Your task to perform on an android device: change text size in settings app Image 0: 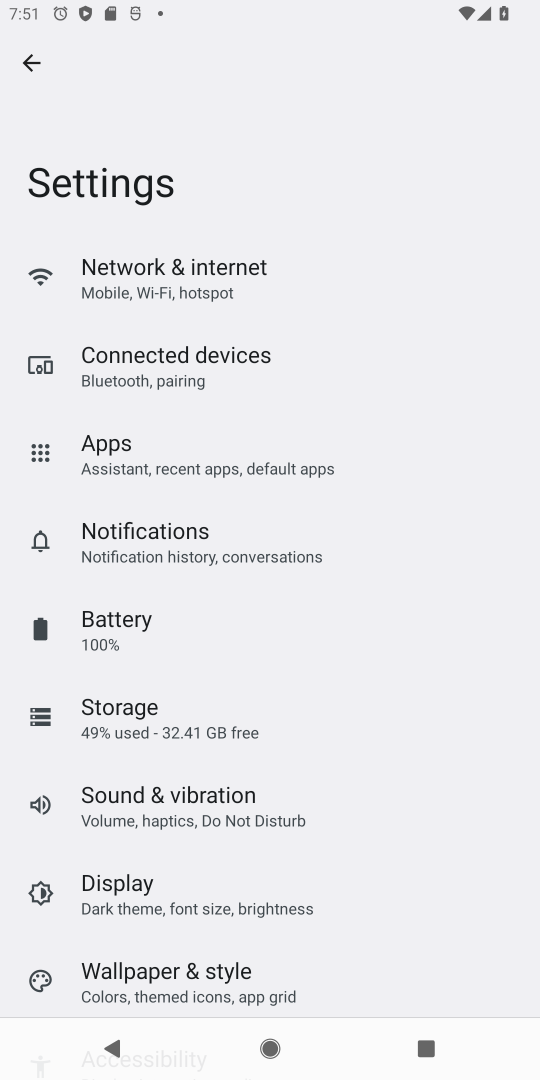
Step 0: drag from (319, 446) to (318, 574)
Your task to perform on an android device: change text size in settings app Image 1: 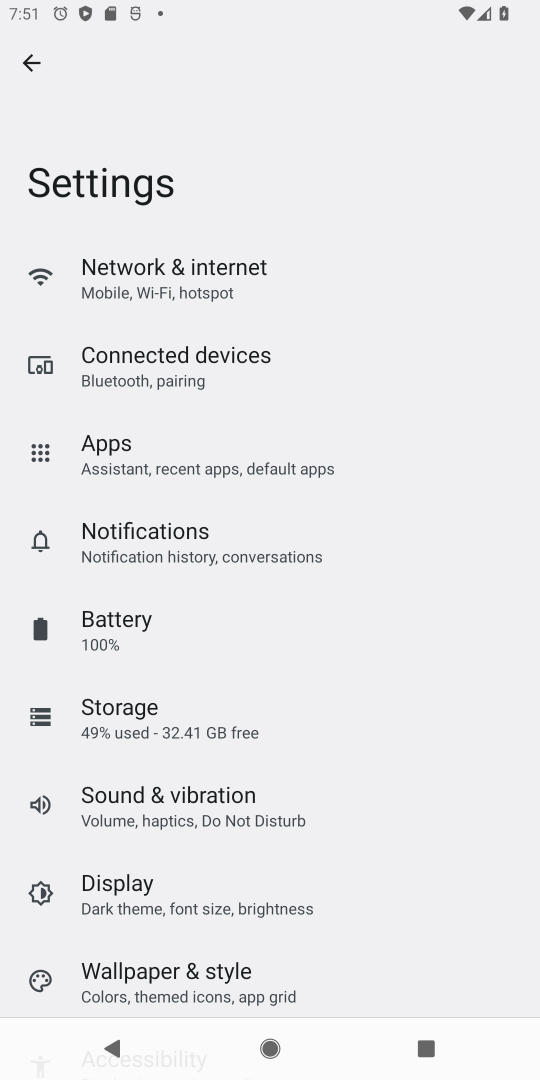
Step 1: click (19, 40)
Your task to perform on an android device: change text size in settings app Image 2: 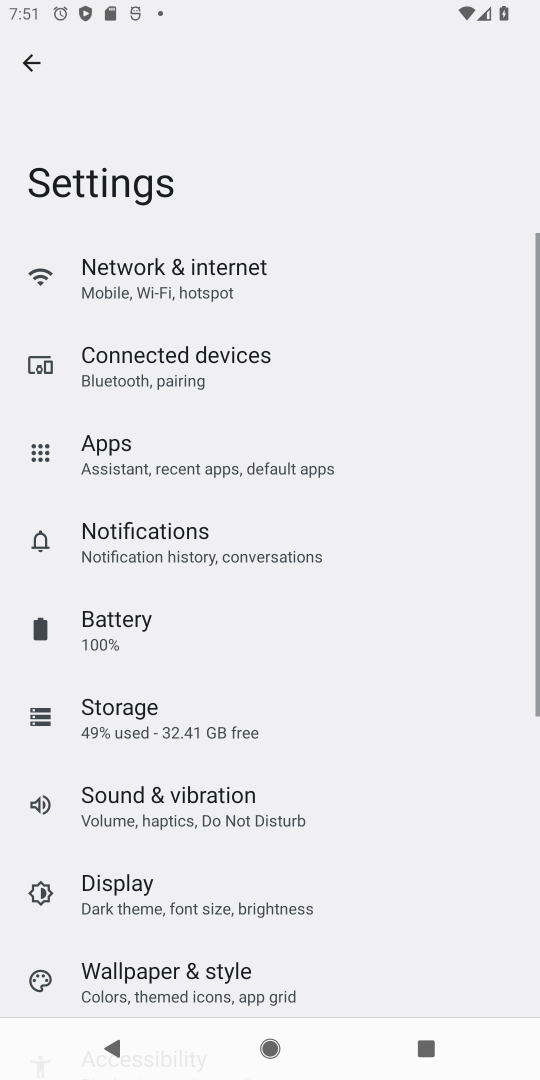
Step 2: click (36, 55)
Your task to perform on an android device: change text size in settings app Image 3: 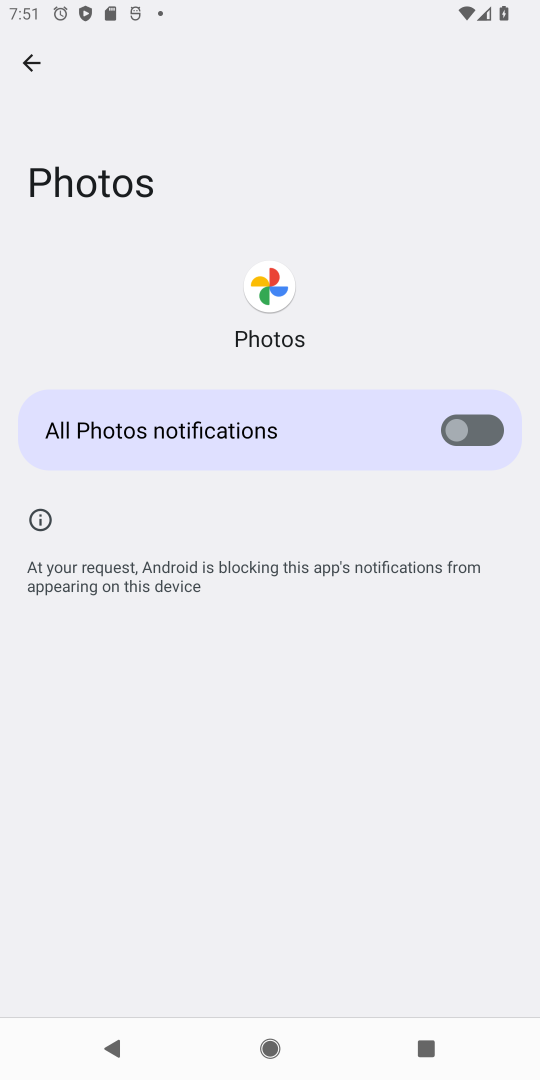
Step 3: click (37, 63)
Your task to perform on an android device: change text size in settings app Image 4: 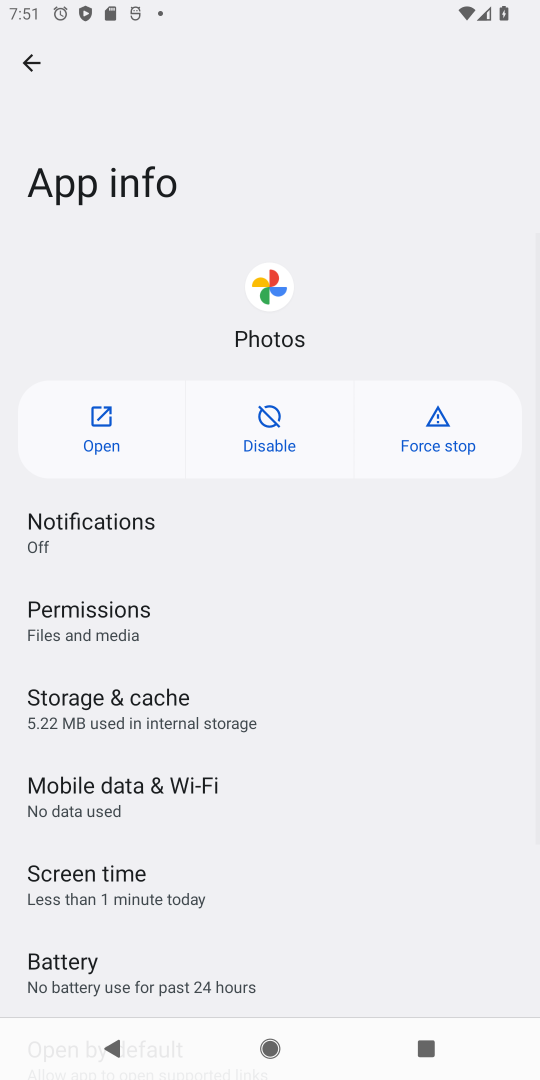
Step 4: click (38, 50)
Your task to perform on an android device: change text size in settings app Image 5: 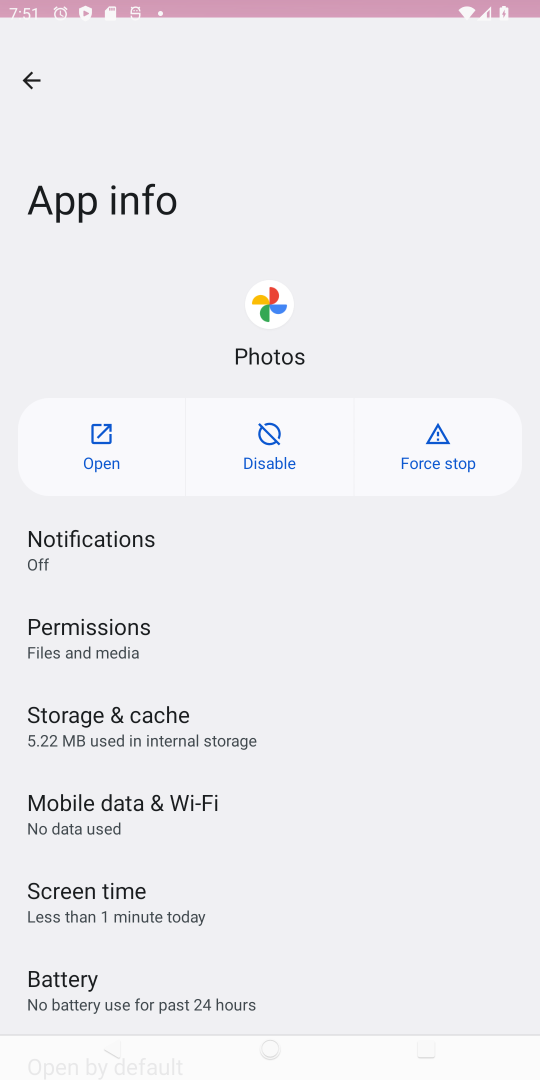
Step 5: press back button
Your task to perform on an android device: change text size in settings app Image 6: 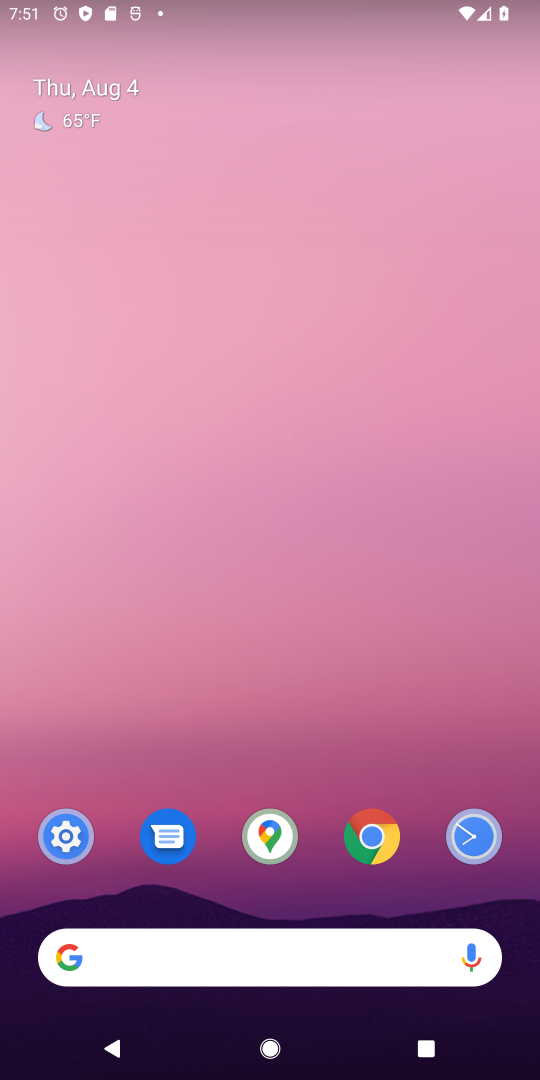
Step 6: drag from (192, 727) to (223, 40)
Your task to perform on an android device: change text size in settings app Image 7: 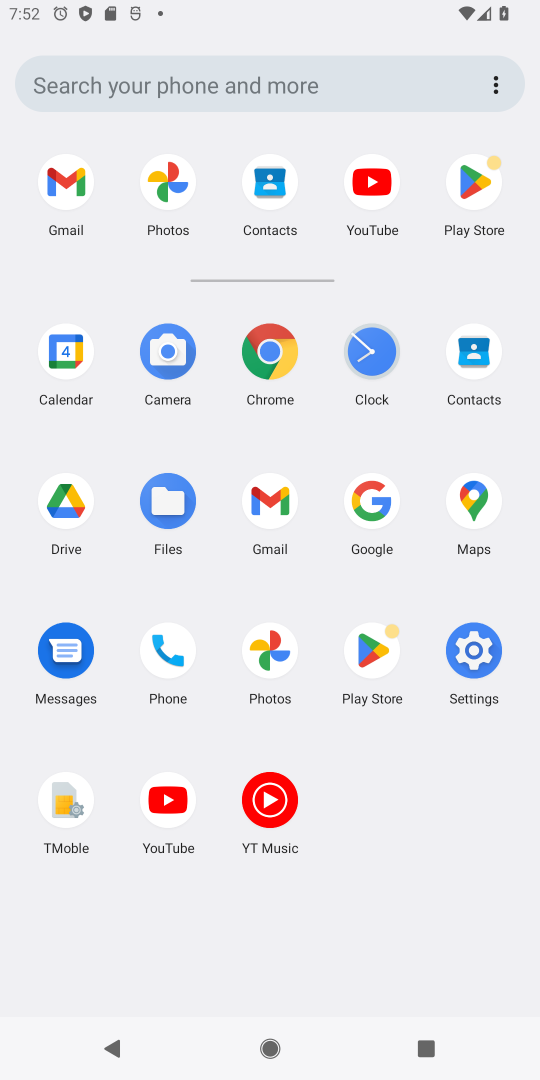
Step 7: click (502, 678)
Your task to perform on an android device: change text size in settings app Image 8: 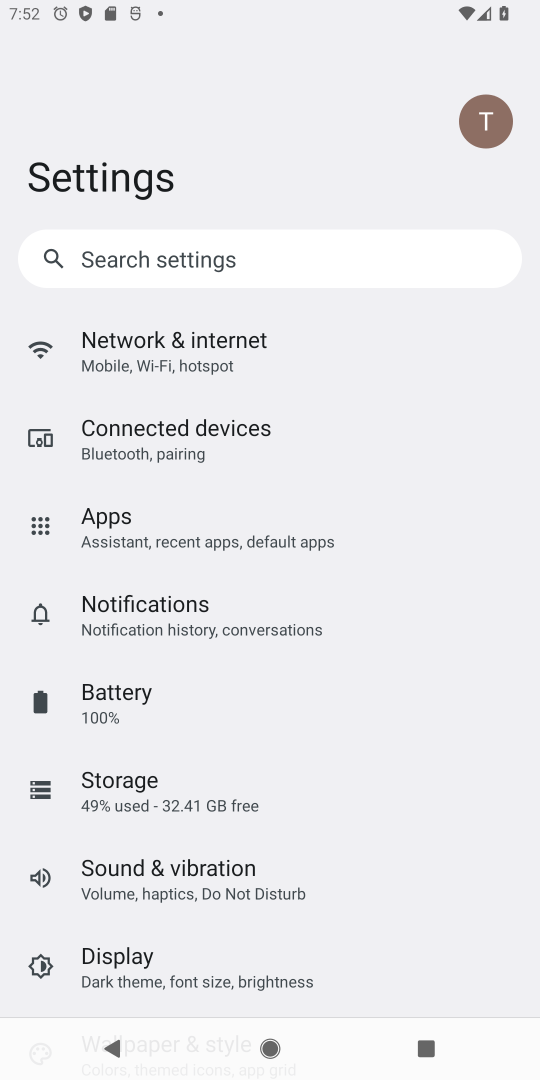
Step 8: click (275, 251)
Your task to perform on an android device: change text size in settings app Image 9: 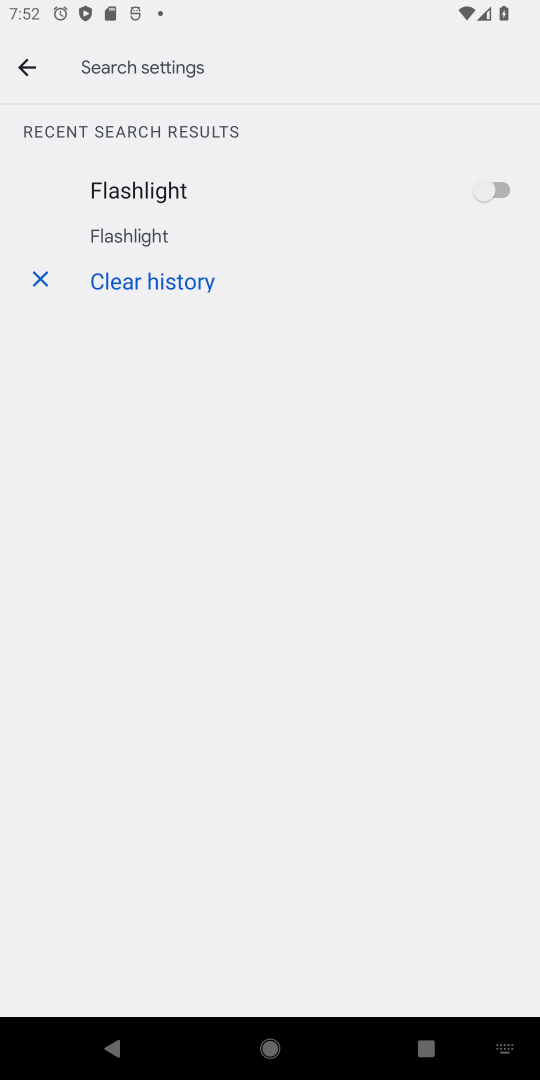
Step 9: type "text size"
Your task to perform on an android device: change text size in settings app Image 10: 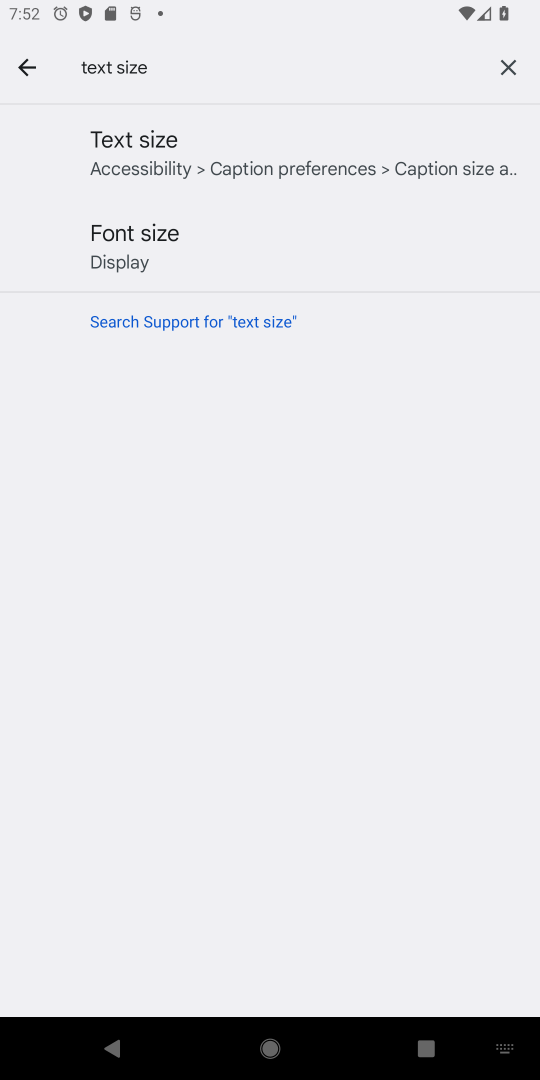
Step 10: click (179, 250)
Your task to perform on an android device: change text size in settings app Image 11: 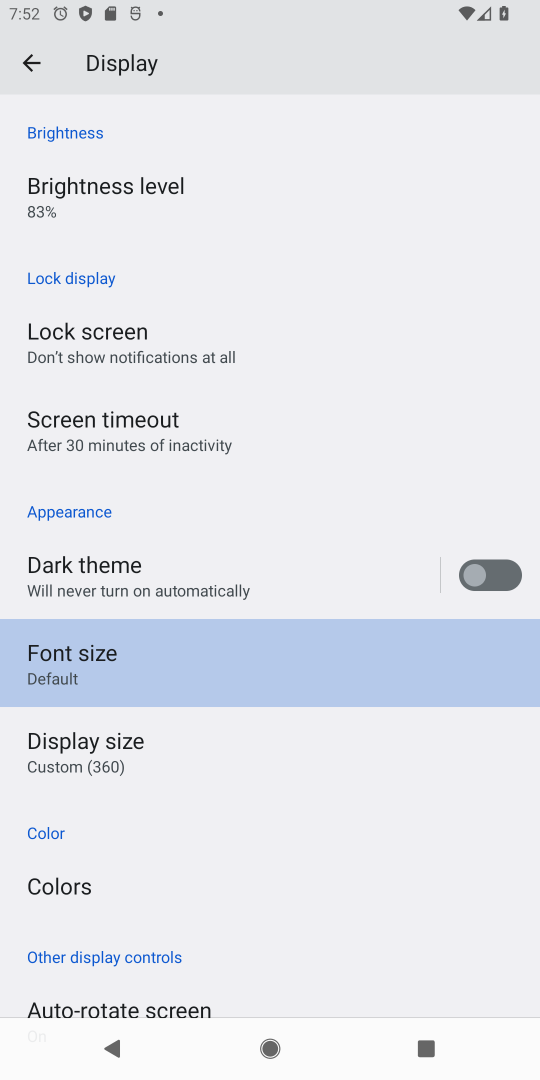
Step 11: click (112, 675)
Your task to perform on an android device: change text size in settings app Image 12: 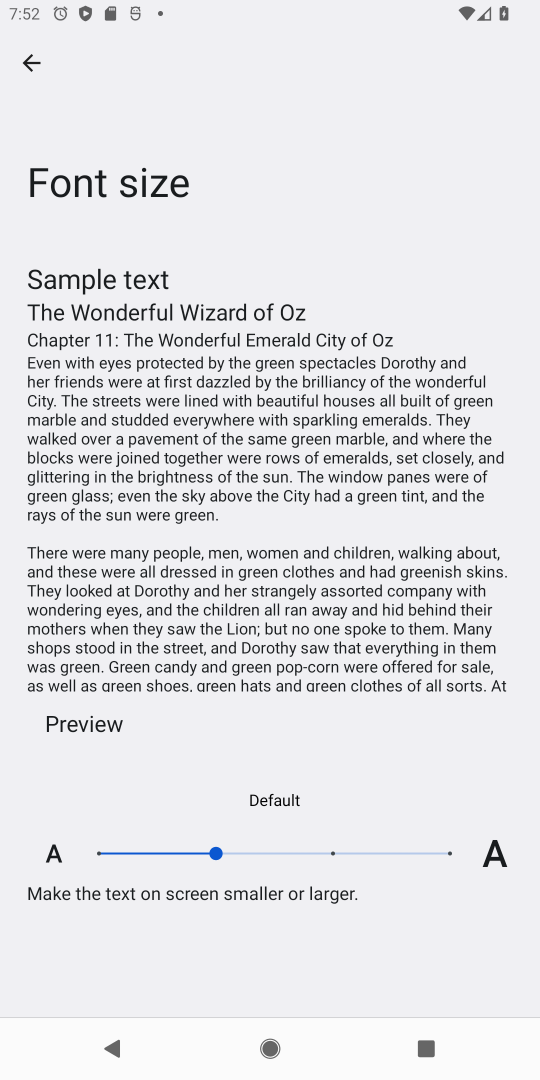
Step 12: task complete